Your task to perform on an android device: Search for Italian restaurants on Maps Image 0: 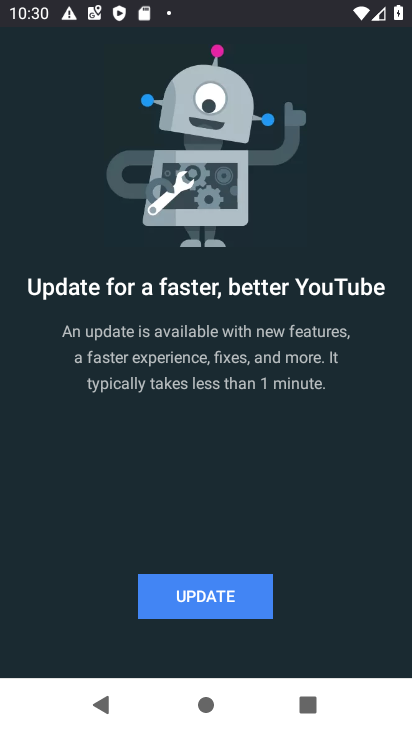
Step 0: press home button
Your task to perform on an android device: Search for Italian restaurants on Maps Image 1: 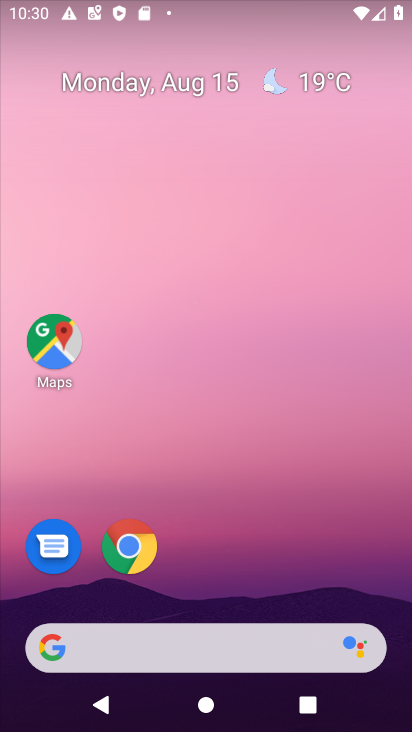
Step 1: drag from (231, 616) to (221, 59)
Your task to perform on an android device: Search for Italian restaurants on Maps Image 2: 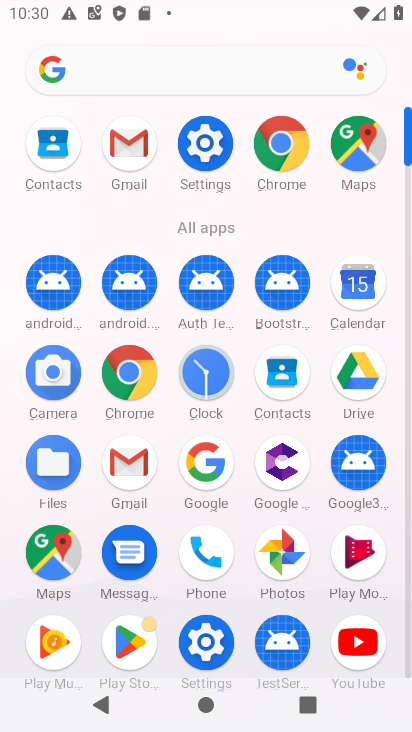
Step 2: click (39, 549)
Your task to perform on an android device: Search for Italian restaurants on Maps Image 3: 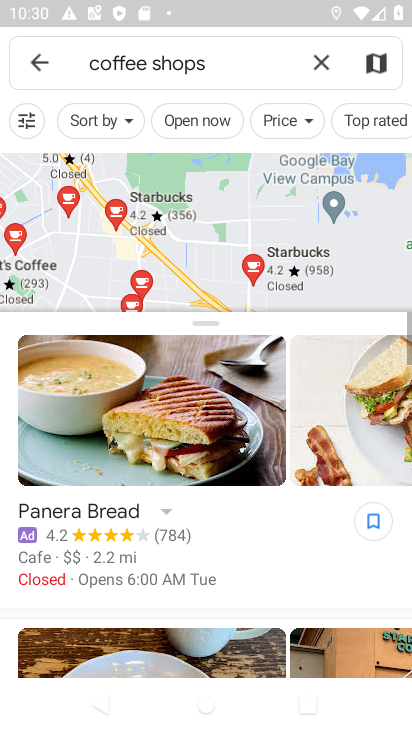
Step 3: click (321, 59)
Your task to perform on an android device: Search for Italian restaurants on Maps Image 4: 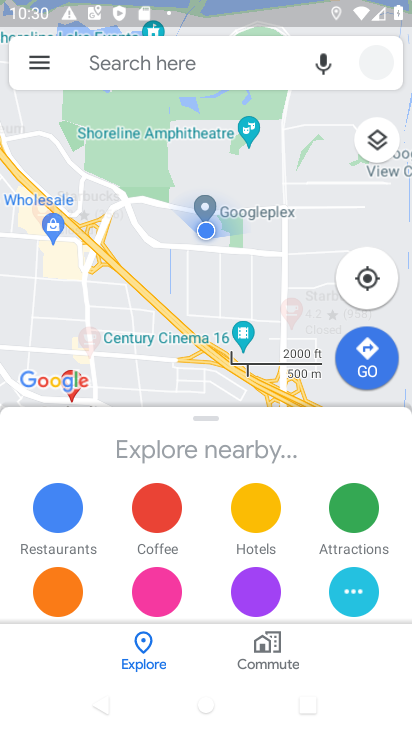
Step 4: click (325, 56)
Your task to perform on an android device: Search for Italian restaurants on Maps Image 5: 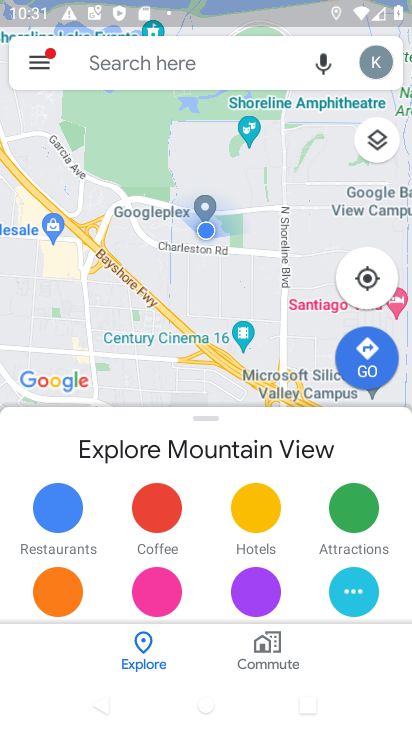
Step 5: click (221, 61)
Your task to perform on an android device: Search for Italian restaurants on Maps Image 6: 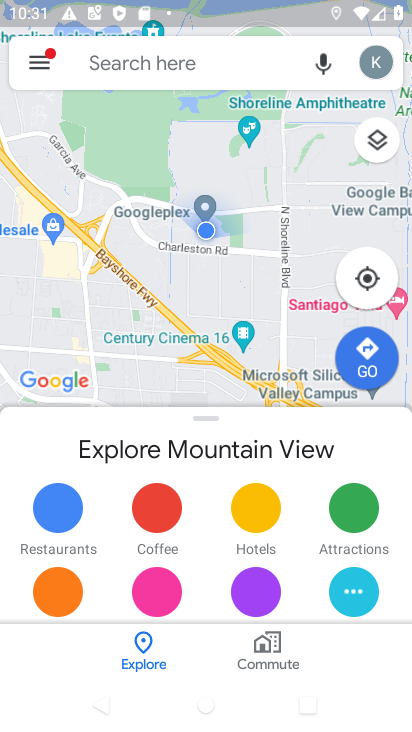
Step 6: click (226, 51)
Your task to perform on an android device: Search for Italian restaurants on Maps Image 7: 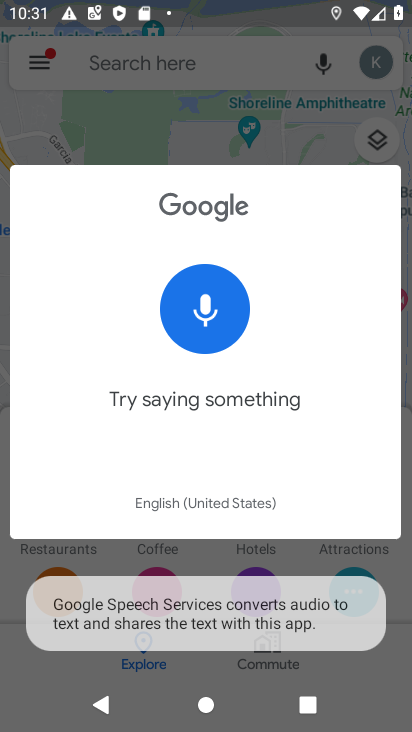
Step 7: click (225, 122)
Your task to perform on an android device: Search for Italian restaurants on Maps Image 8: 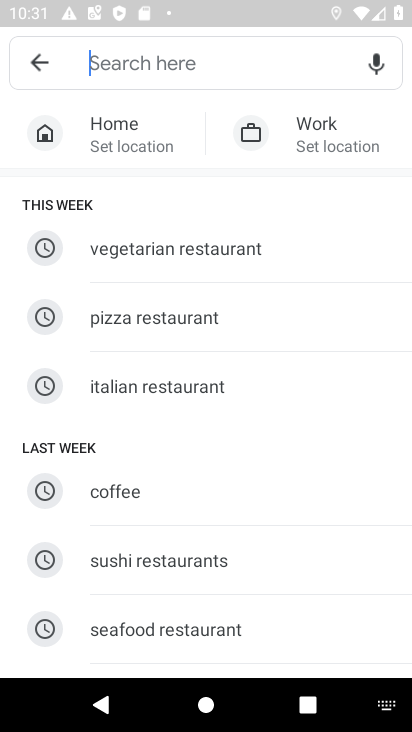
Step 8: type "Italian restaurants"
Your task to perform on an android device: Search for Italian restaurants on Maps Image 9: 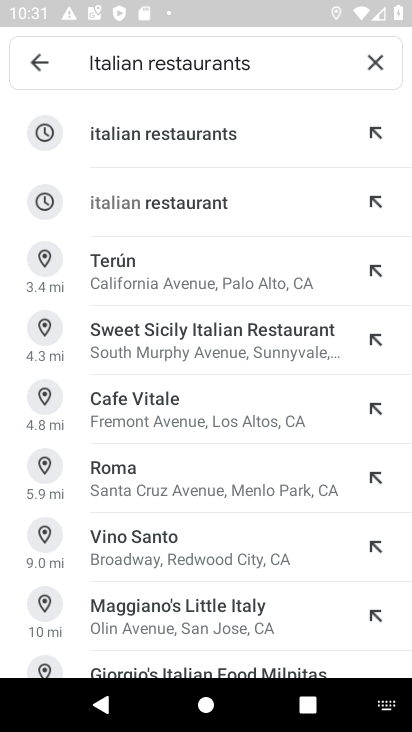
Step 9: click (206, 130)
Your task to perform on an android device: Search for Italian restaurants on Maps Image 10: 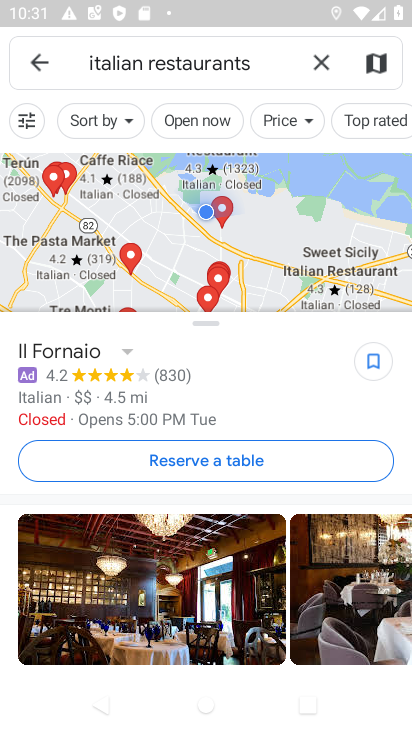
Step 10: task complete